Your task to perform on an android device: turn on airplane mode Image 0: 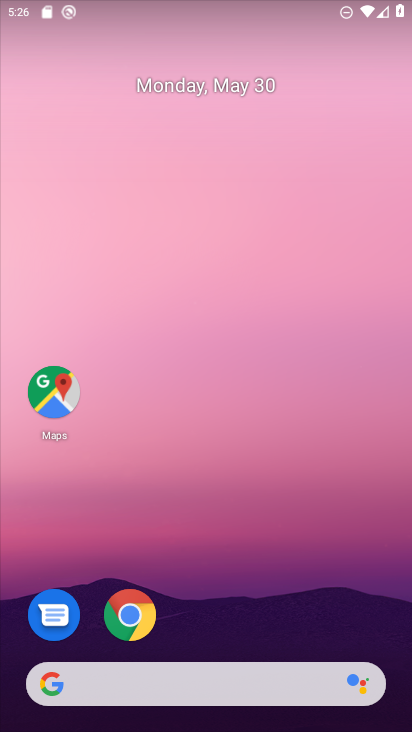
Step 0: drag from (245, 17) to (291, 479)
Your task to perform on an android device: turn on airplane mode Image 1: 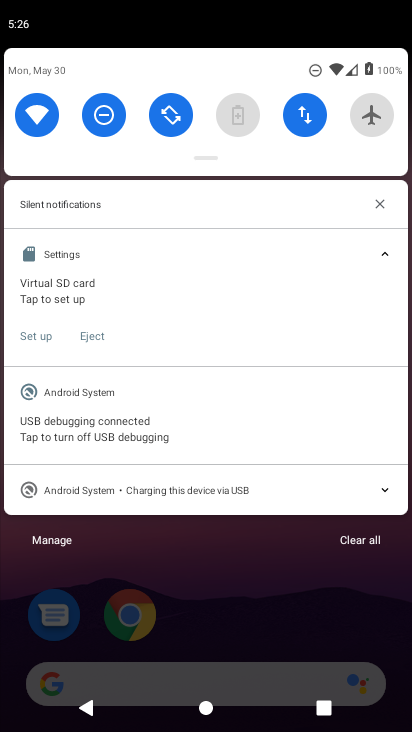
Step 1: click (382, 96)
Your task to perform on an android device: turn on airplane mode Image 2: 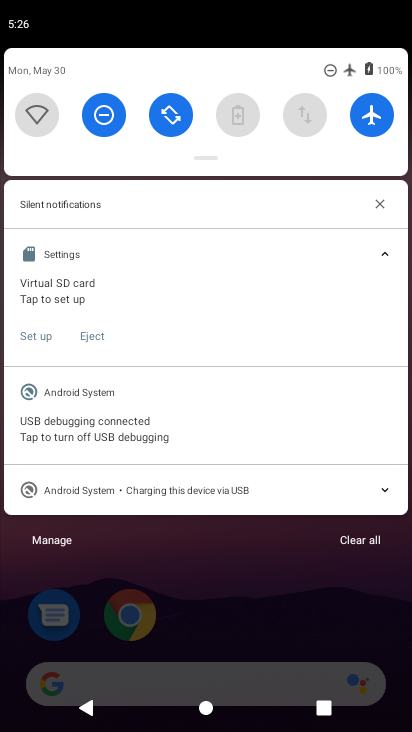
Step 2: task complete